Your task to perform on an android device: open sync settings in chrome Image 0: 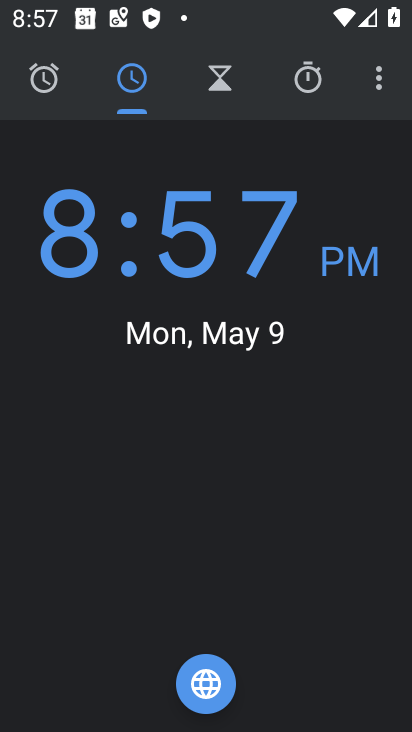
Step 0: press back button
Your task to perform on an android device: open sync settings in chrome Image 1: 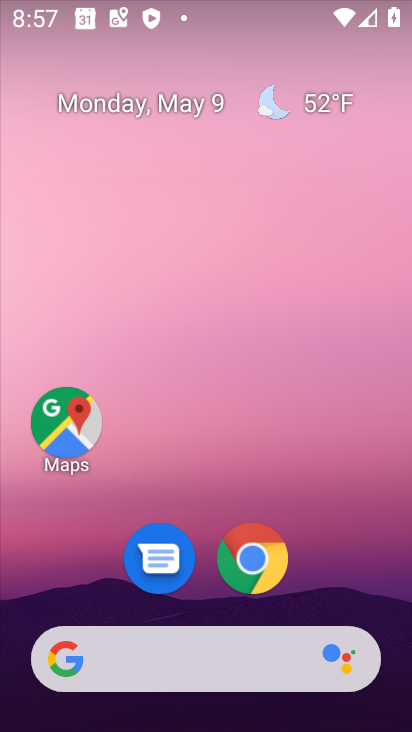
Step 1: click (240, 572)
Your task to perform on an android device: open sync settings in chrome Image 2: 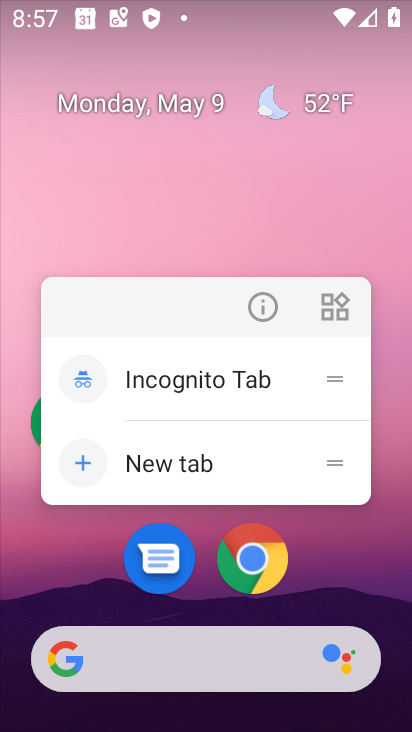
Step 2: click (252, 574)
Your task to perform on an android device: open sync settings in chrome Image 3: 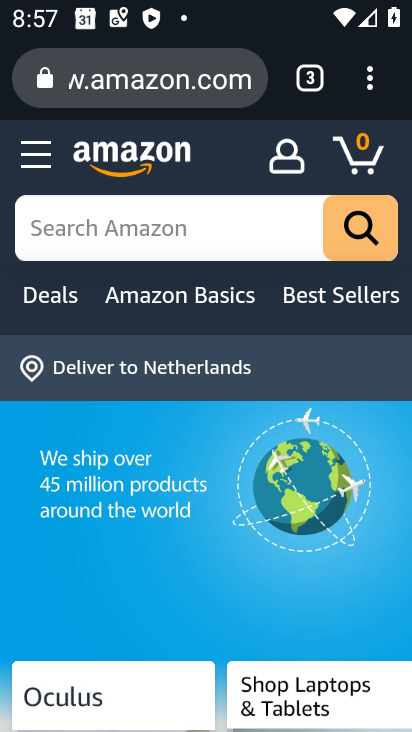
Step 3: drag from (368, 73) to (128, 608)
Your task to perform on an android device: open sync settings in chrome Image 4: 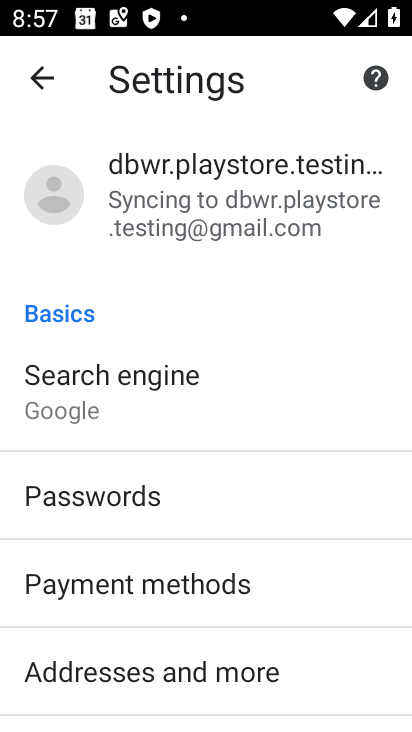
Step 4: click (206, 209)
Your task to perform on an android device: open sync settings in chrome Image 5: 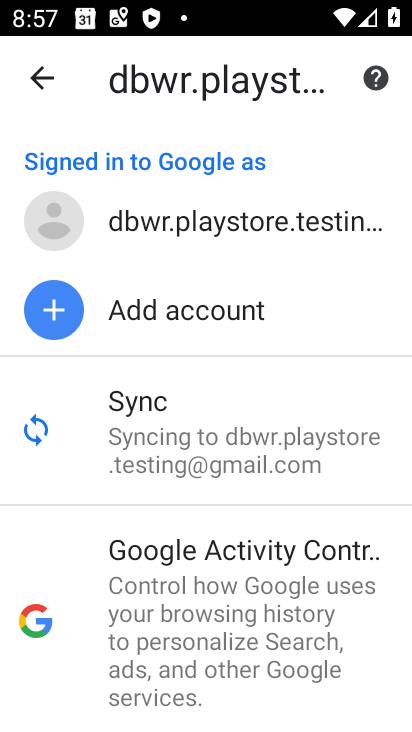
Step 5: task complete